Your task to perform on an android device: Go to settings Image 0: 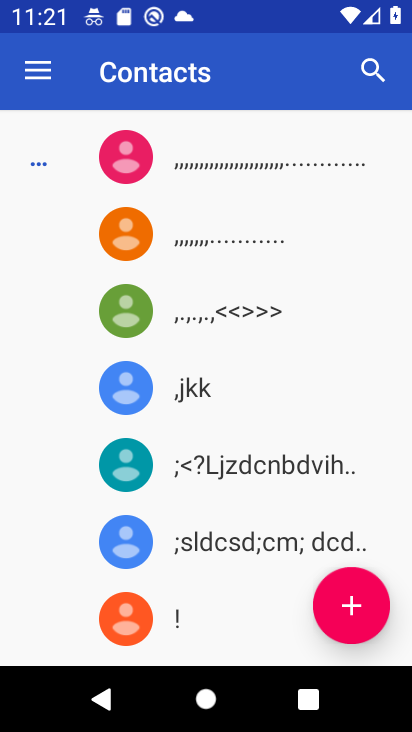
Step 0: press home button
Your task to perform on an android device: Go to settings Image 1: 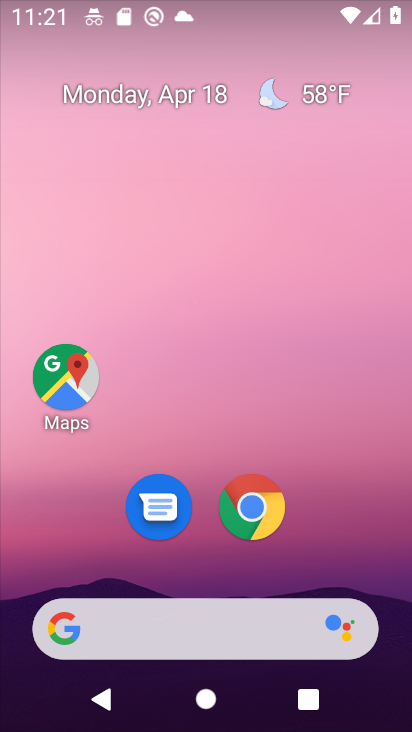
Step 1: drag from (202, 559) to (213, 0)
Your task to perform on an android device: Go to settings Image 2: 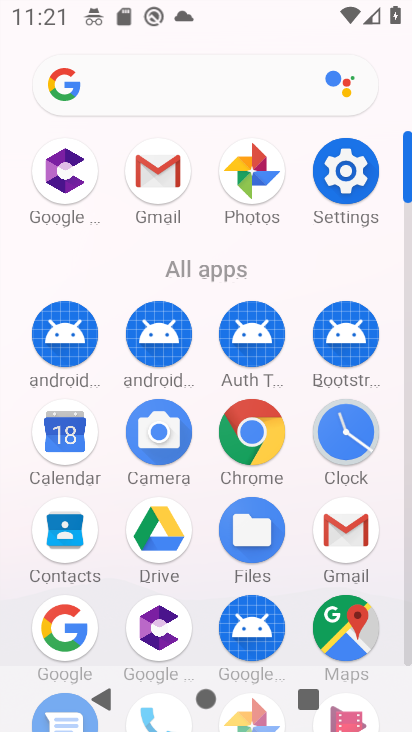
Step 2: click (341, 192)
Your task to perform on an android device: Go to settings Image 3: 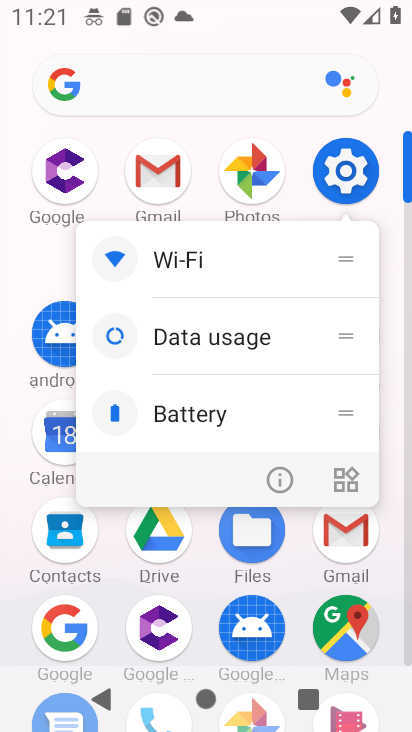
Step 3: click (349, 162)
Your task to perform on an android device: Go to settings Image 4: 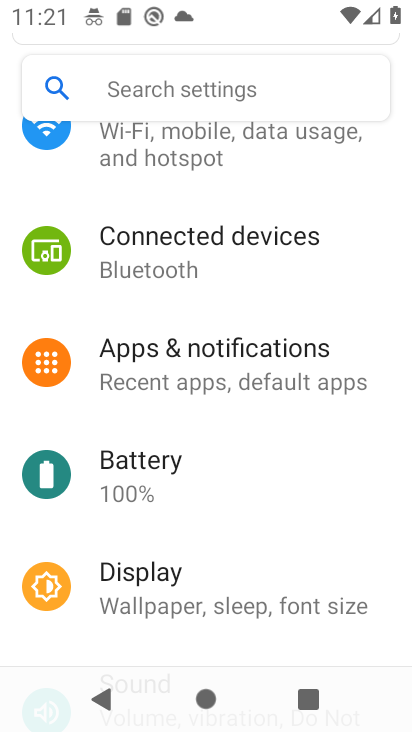
Step 4: task complete